Your task to perform on an android device: Open notification settings Image 0: 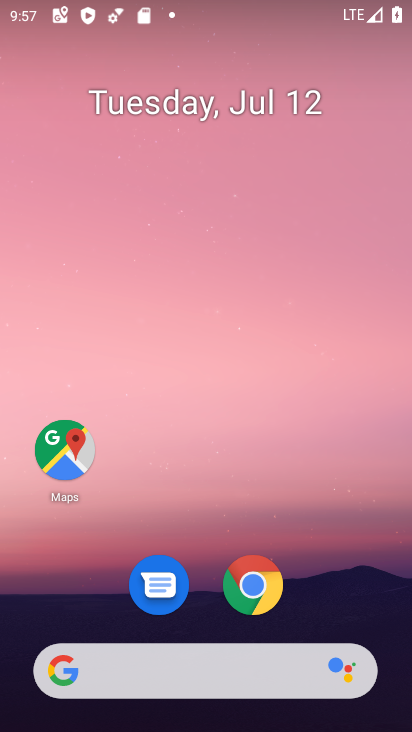
Step 0: press home button
Your task to perform on an android device: Open notification settings Image 1: 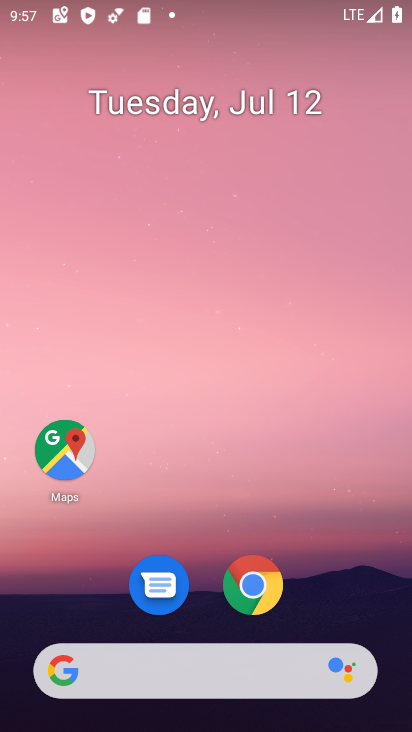
Step 1: drag from (178, 684) to (305, 66)
Your task to perform on an android device: Open notification settings Image 2: 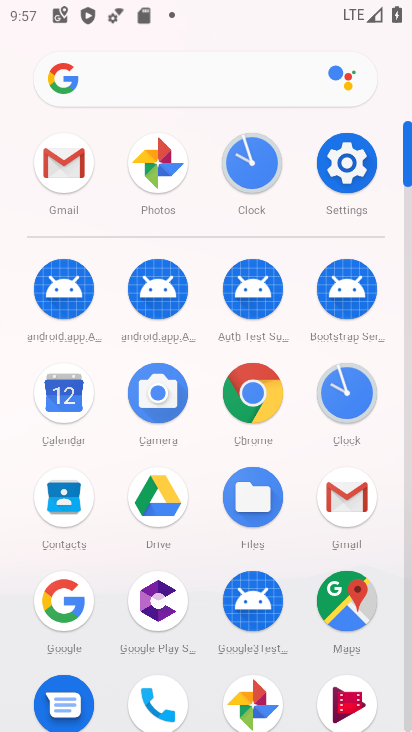
Step 2: click (353, 161)
Your task to perform on an android device: Open notification settings Image 3: 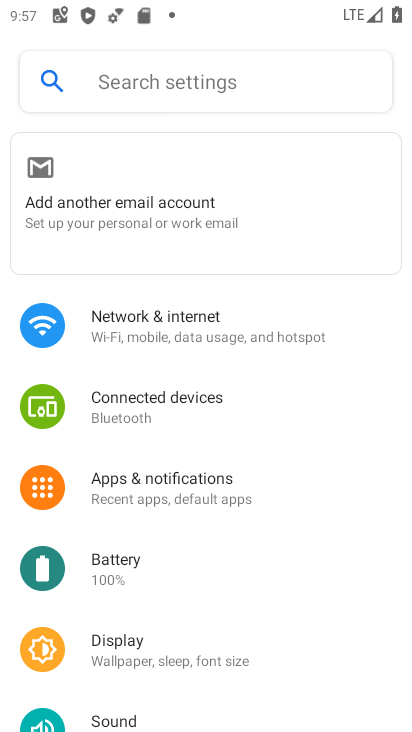
Step 3: click (189, 488)
Your task to perform on an android device: Open notification settings Image 4: 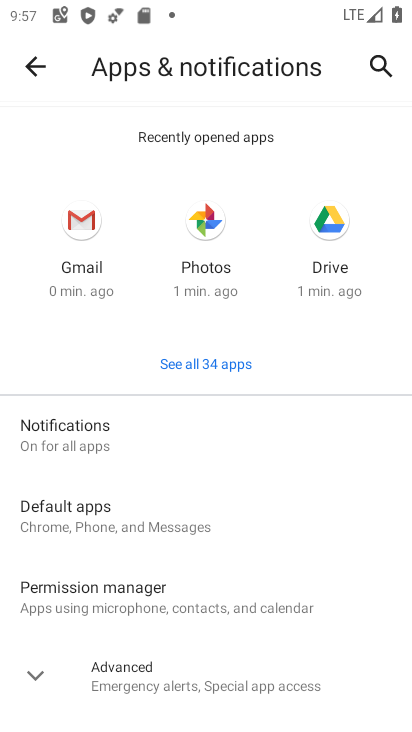
Step 4: click (97, 446)
Your task to perform on an android device: Open notification settings Image 5: 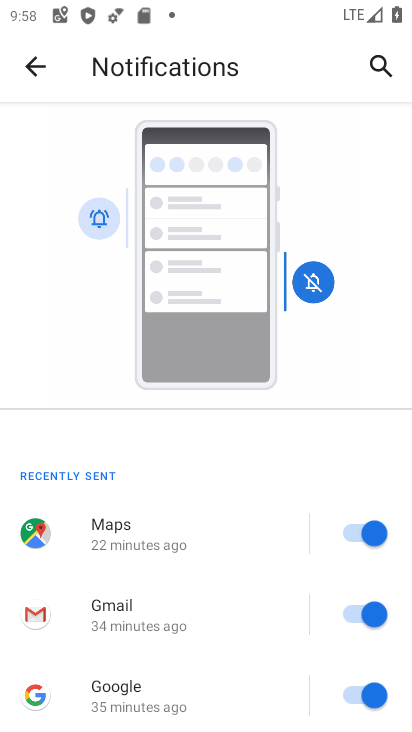
Step 5: task complete